Your task to perform on an android device: delete browsing data in the chrome app Image 0: 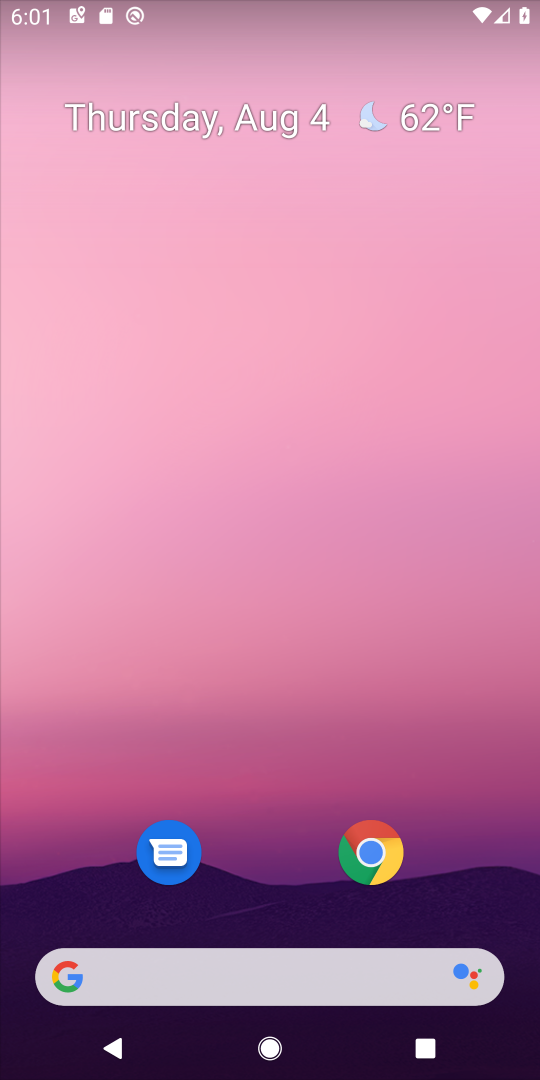
Step 0: press home button
Your task to perform on an android device: delete browsing data in the chrome app Image 1: 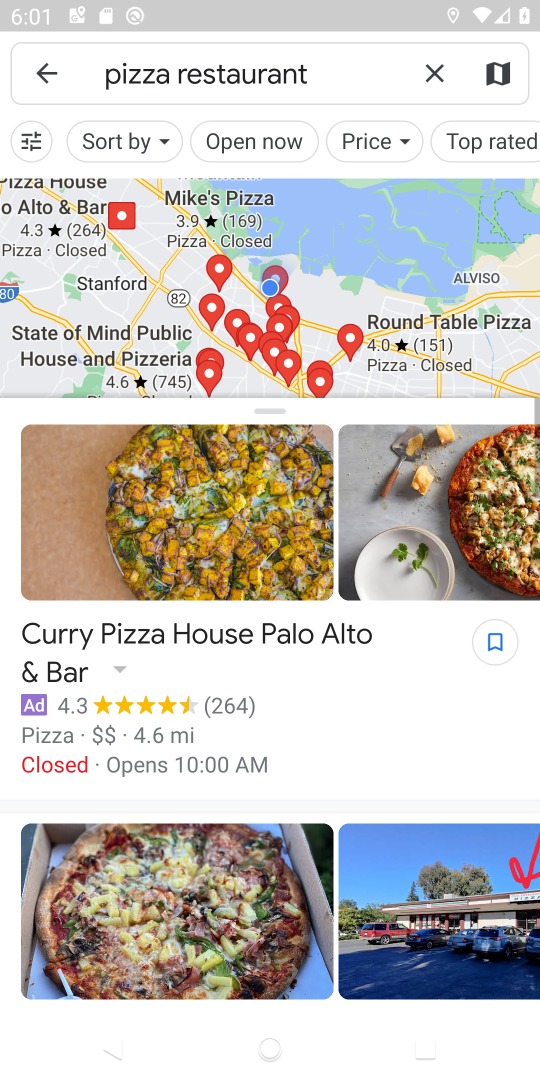
Step 1: press home button
Your task to perform on an android device: delete browsing data in the chrome app Image 2: 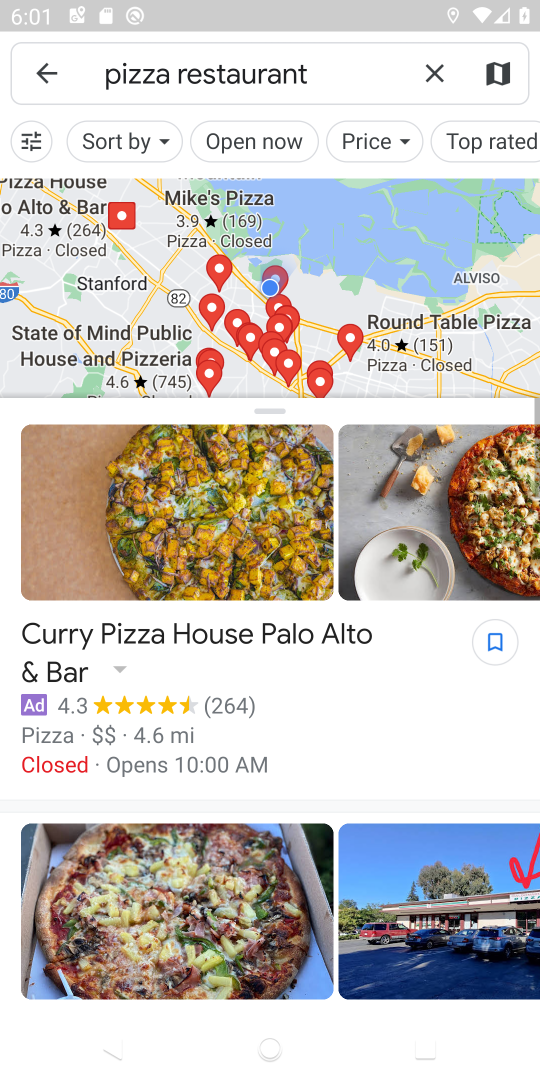
Step 2: click (275, 32)
Your task to perform on an android device: delete browsing data in the chrome app Image 3: 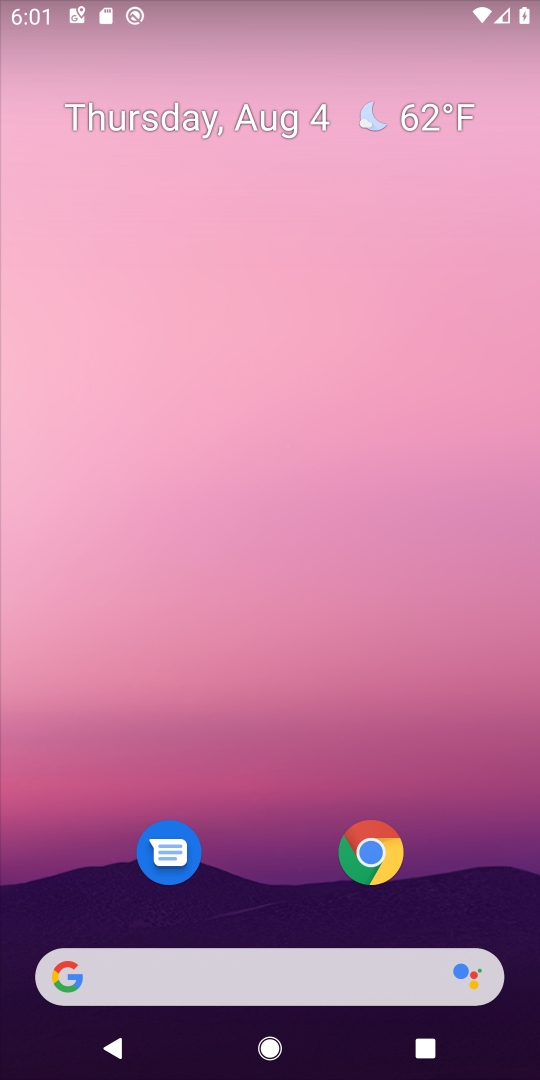
Step 3: click (373, 858)
Your task to perform on an android device: delete browsing data in the chrome app Image 4: 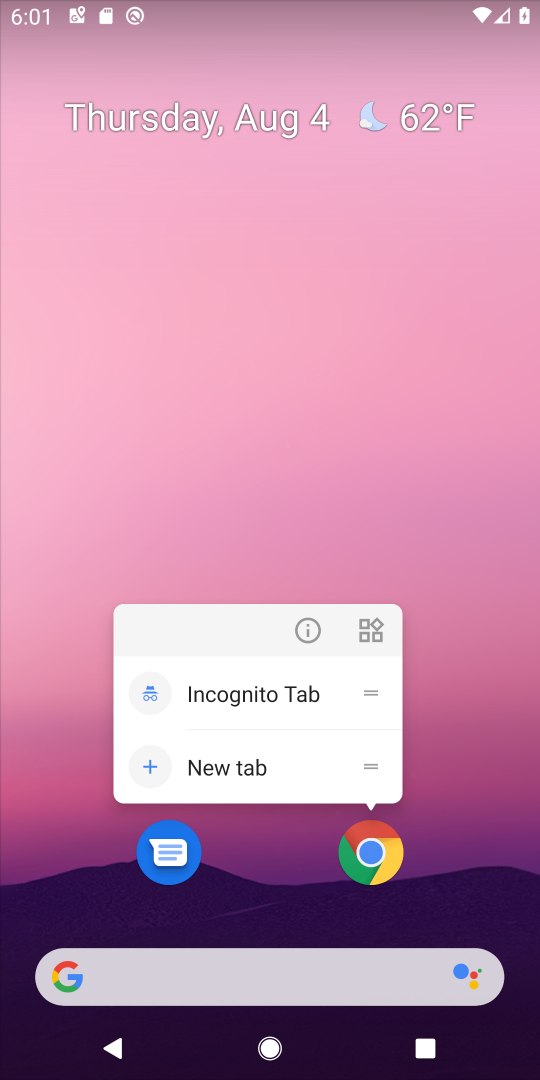
Step 4: click (373, 866)
Your task to perform on an android device: delete browsing data in the chrome app Image 5: 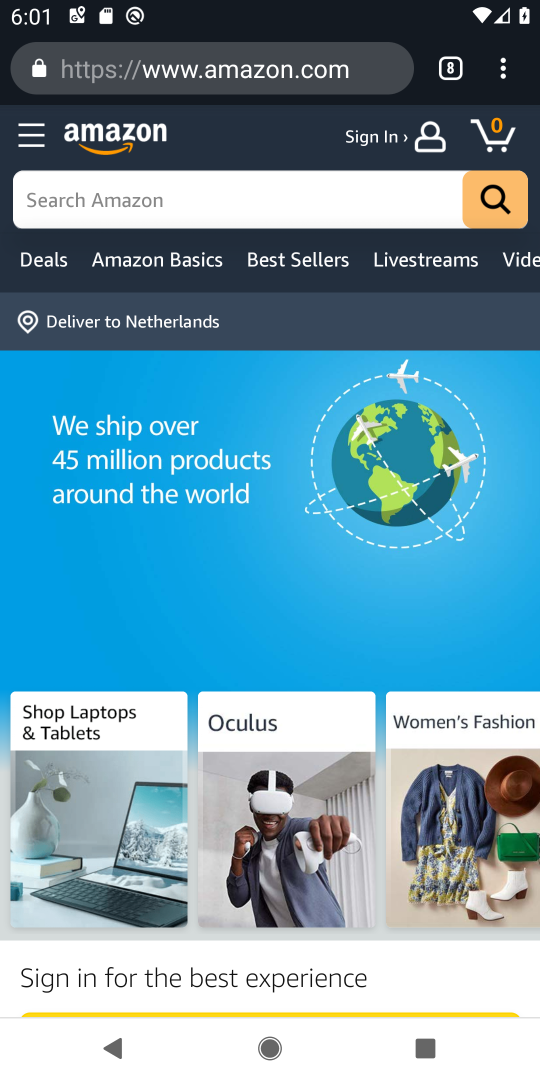
Step 5: click (505, 78)
Your task to perform on an android device: delete browsing data in the chrome app Image 6: 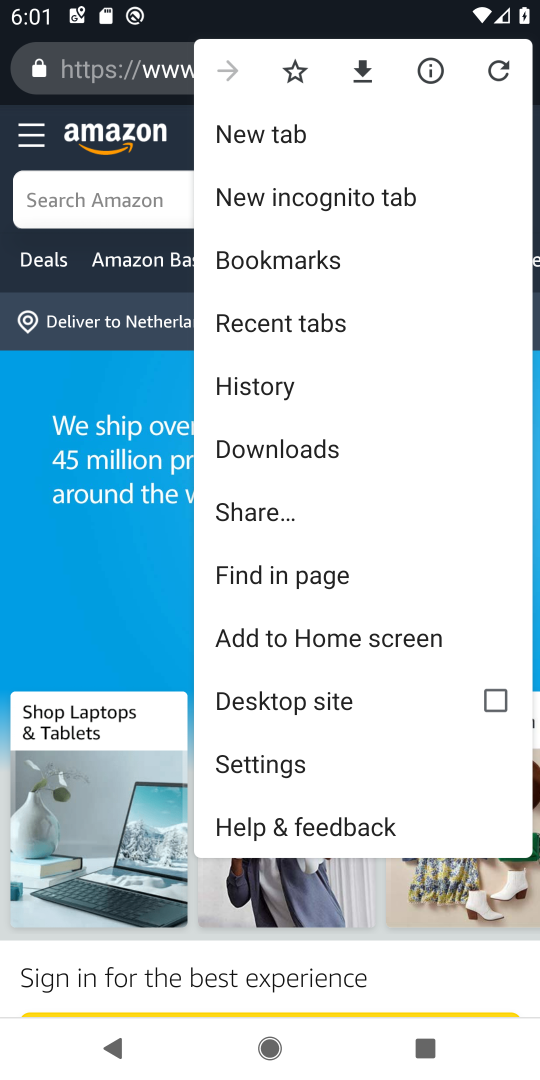
Step 6: click (264, 384)
Your task to perform on an android device: delete browsing data in the chrome app Image 7: 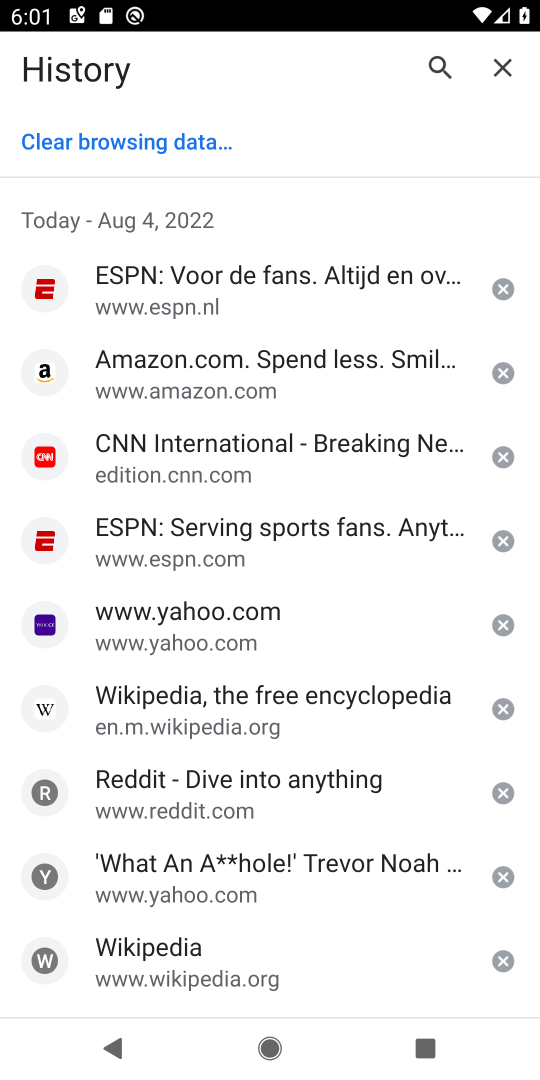
Step 7: click (96, 149)
Your task to perform on an android device: delete browsing data in the chrome app Image 8: 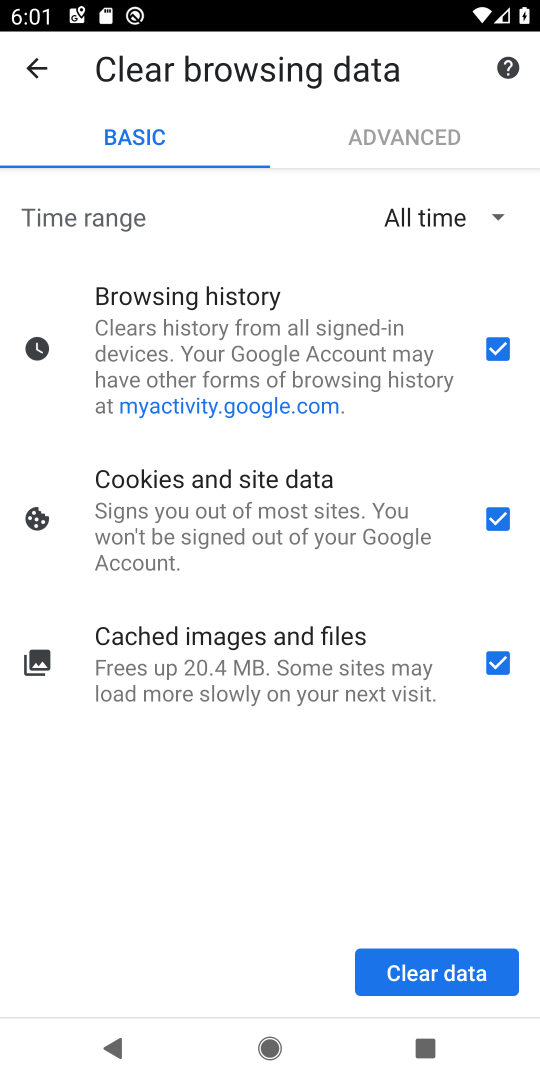
Step 8: click (499, 663)
Your task to perform on an android device: delete browsing data in the chrome app Image 9: 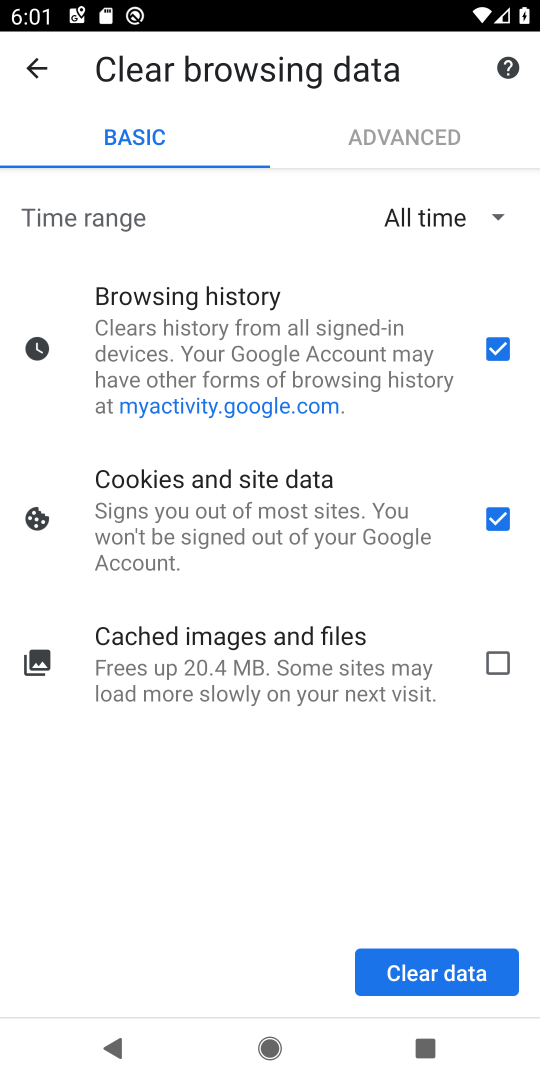
Step 9: click (500, 507)
Your task to perform on an android device: delete browsing data in the chrome app Image 10: 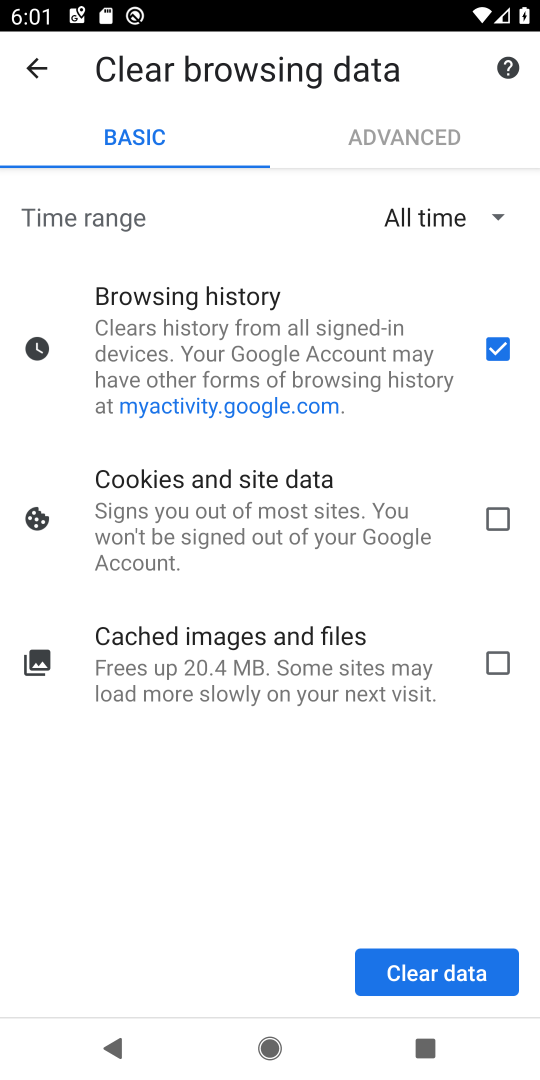
Step 10: click (462, 970)
Your task to perform on an android device: delete browsing data in the chrome app Image 11: 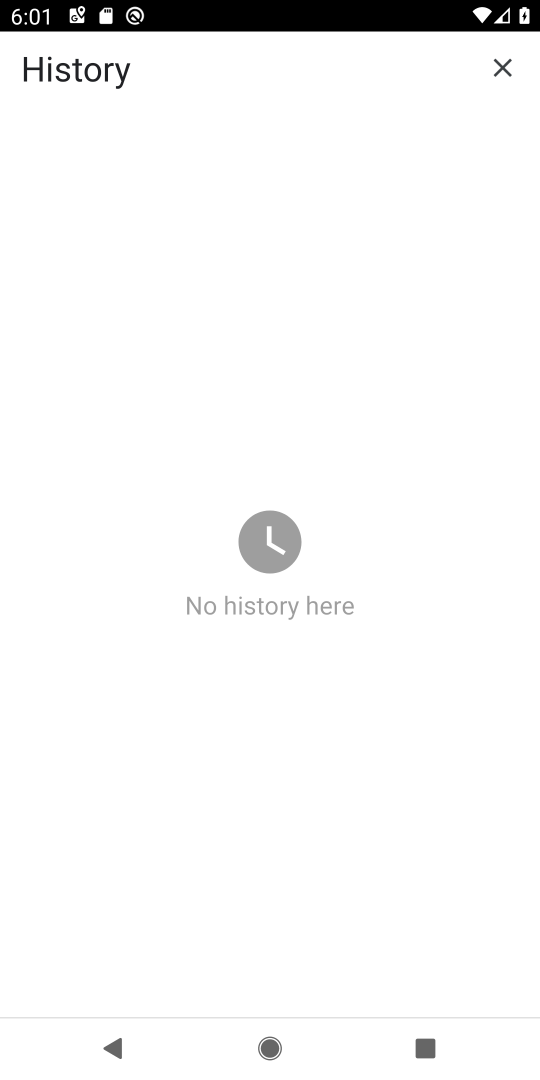
Step 11: task complete